Your task to perform on an android device: turn off wifi Image 0: 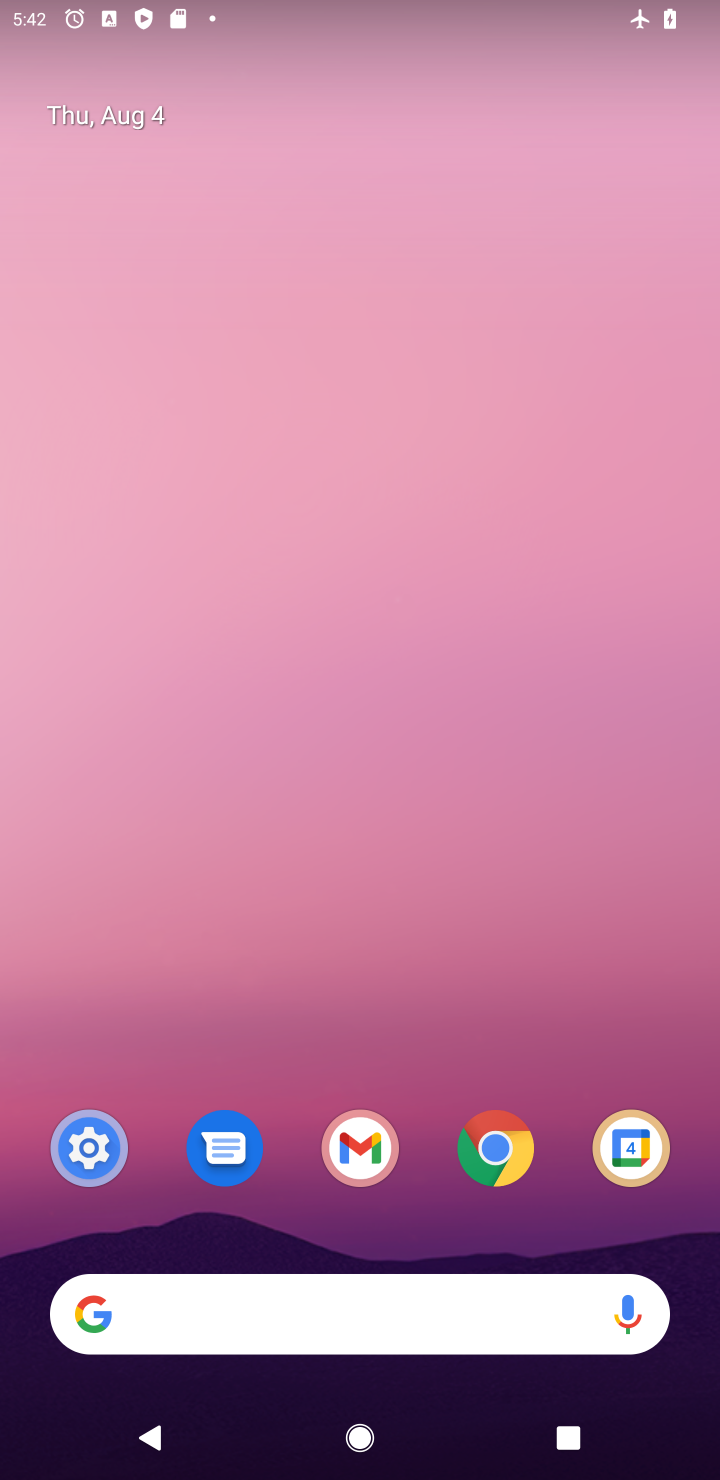
Step 0: click (88, 1149)
Your task to perform on an android device: turn off wifi Image 1: 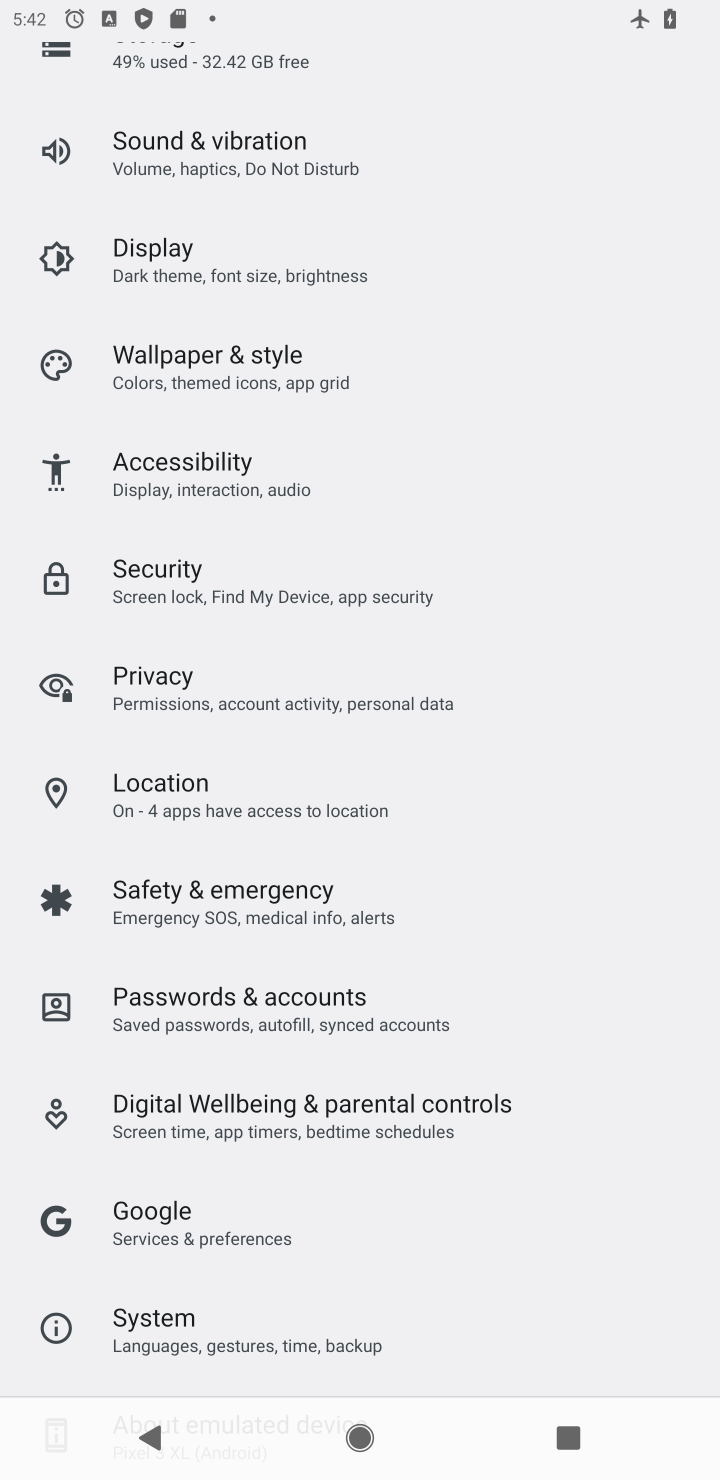
Step 1: drag from (449, 250) to (523, 880)
Your task to perform on an android device: turn off wifi Image 2: 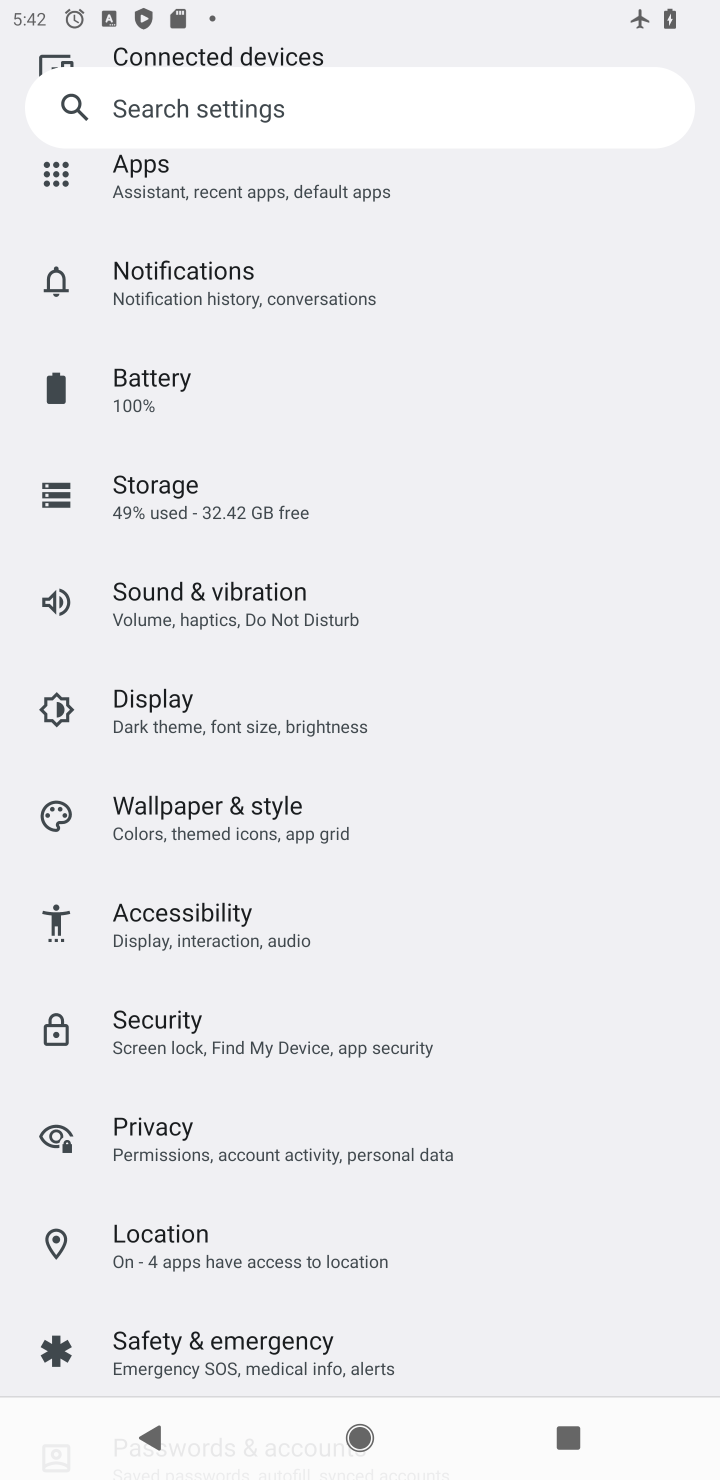
Step 2: drag from (508, 367) to (492, 953)
Your task to perform on an android device: turn off wifi Image 3: 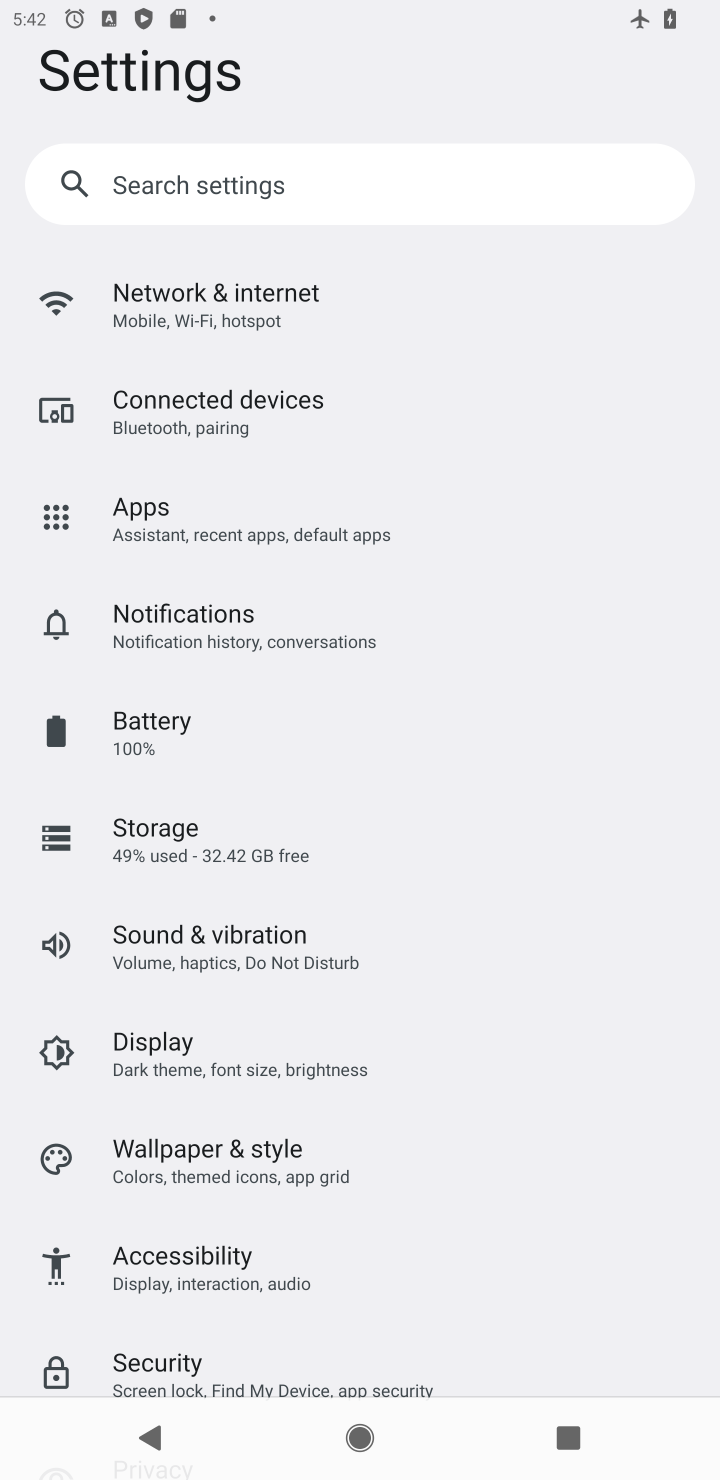
Step 3: click (155, 295)
Your task to perform on an android device: turn off wifi Image 4: 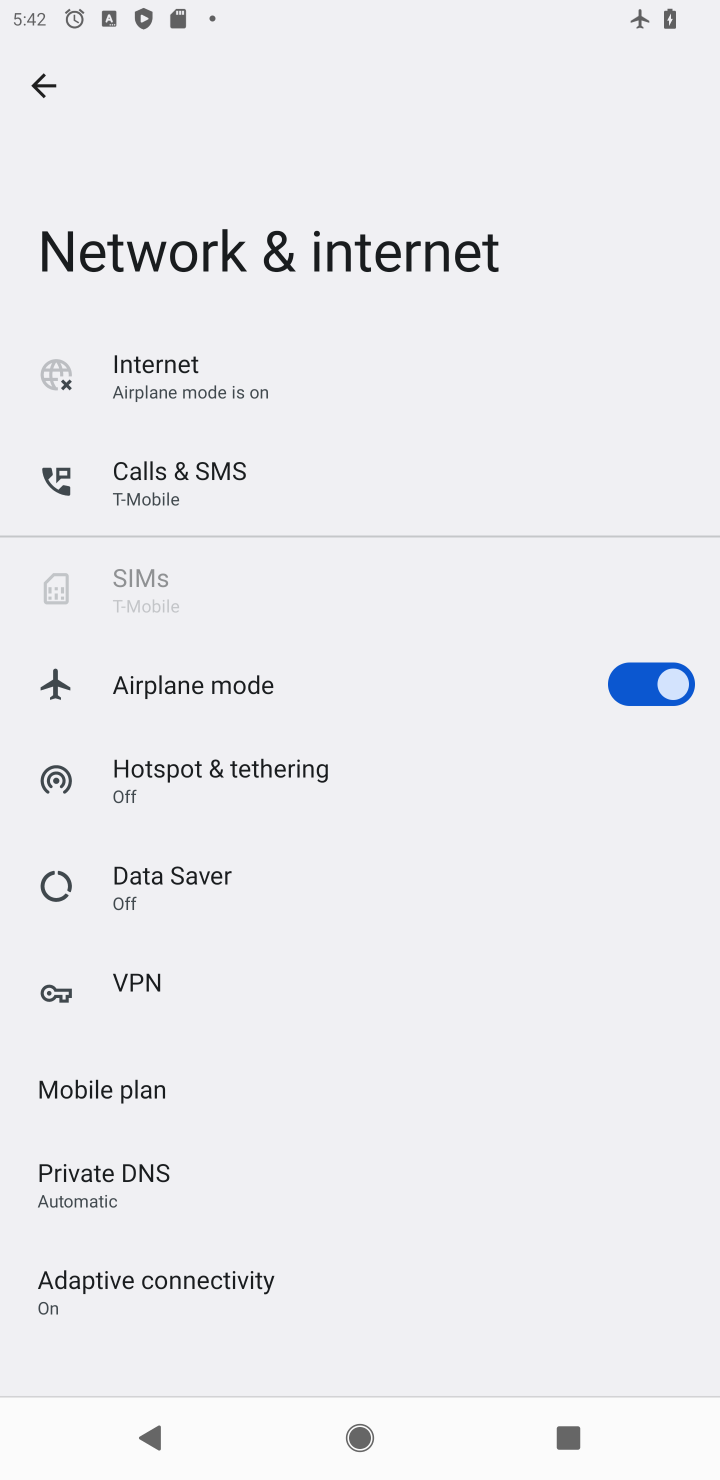
Step 4: click (630, 682)
Your task to perform on an android device: turn off wifi Image 5: 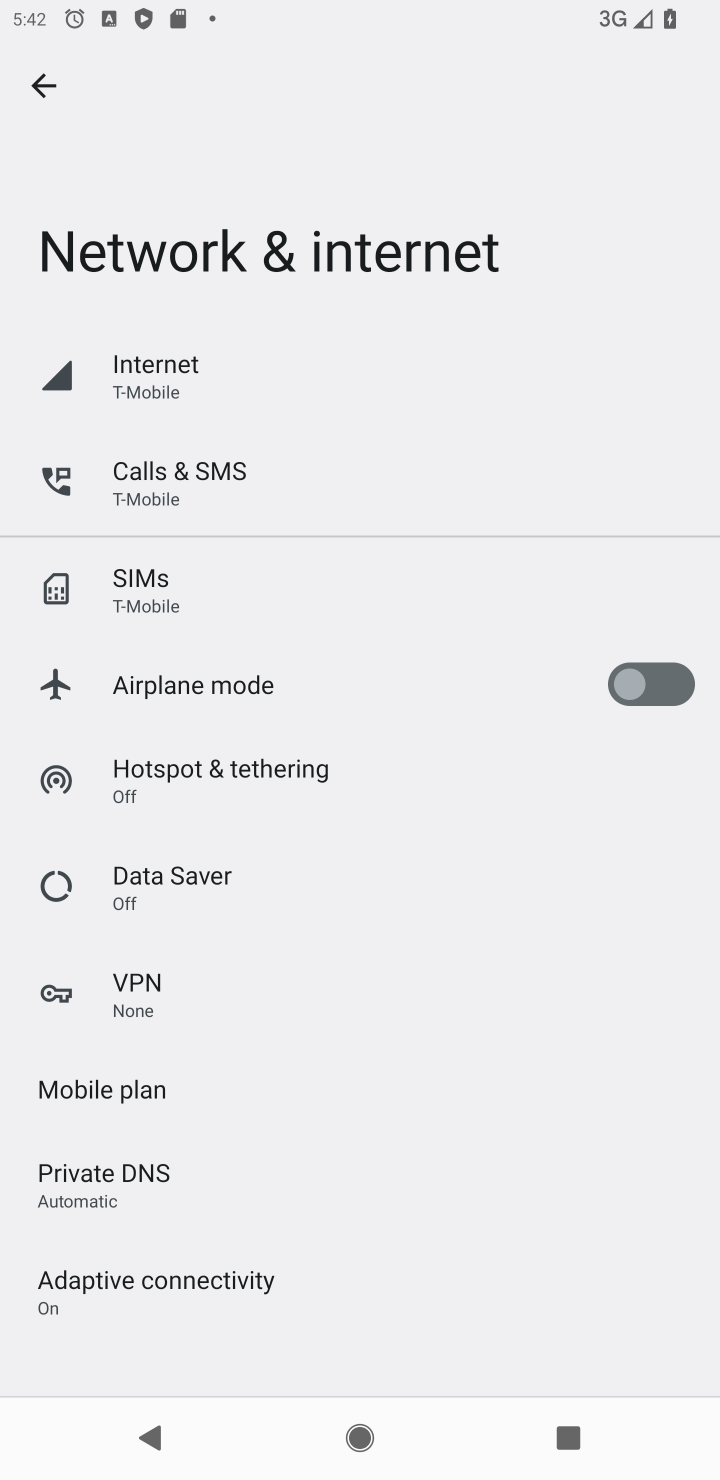
Step 5: click (166, 363)
Your task to perform on an android device: turn off wifi Image 6: 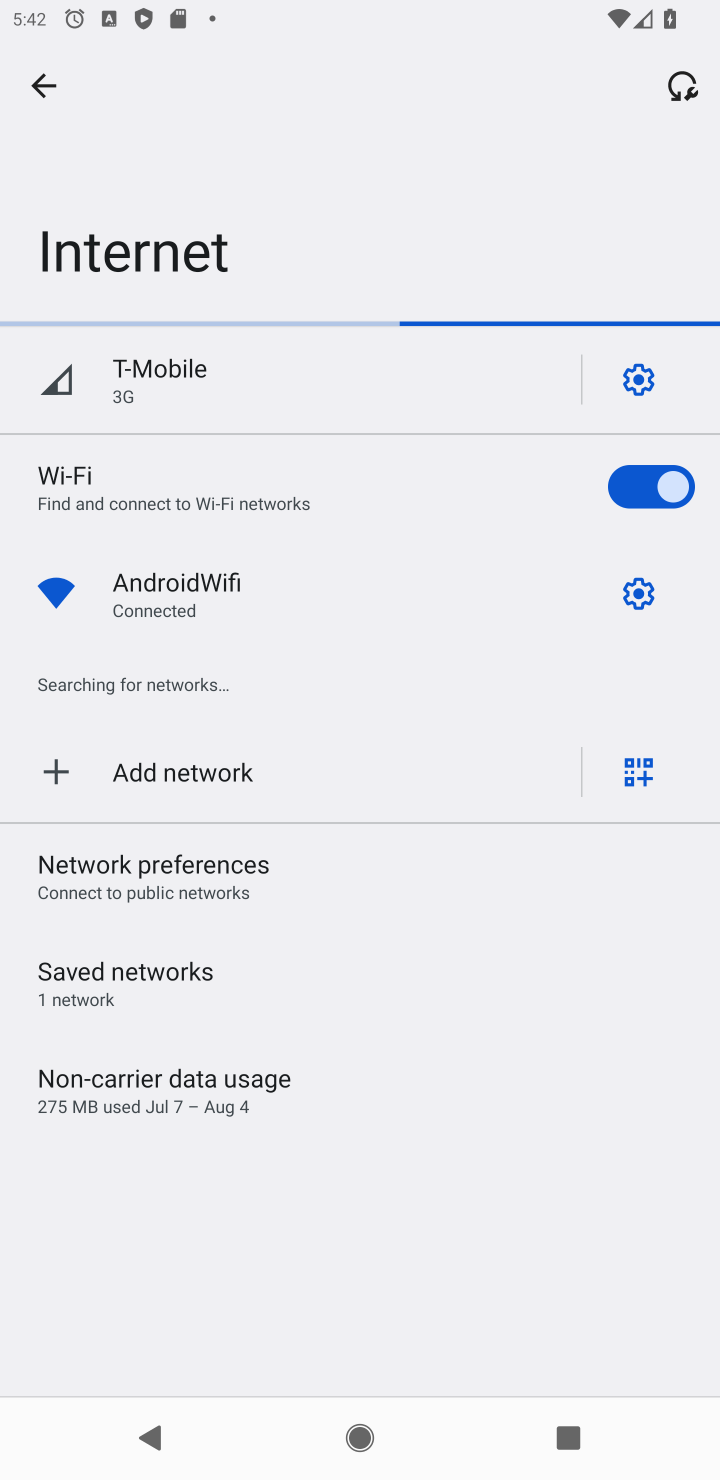
Step 6: click (610, 488)
Your task to perform on an android device: turn off wifi Image 7: 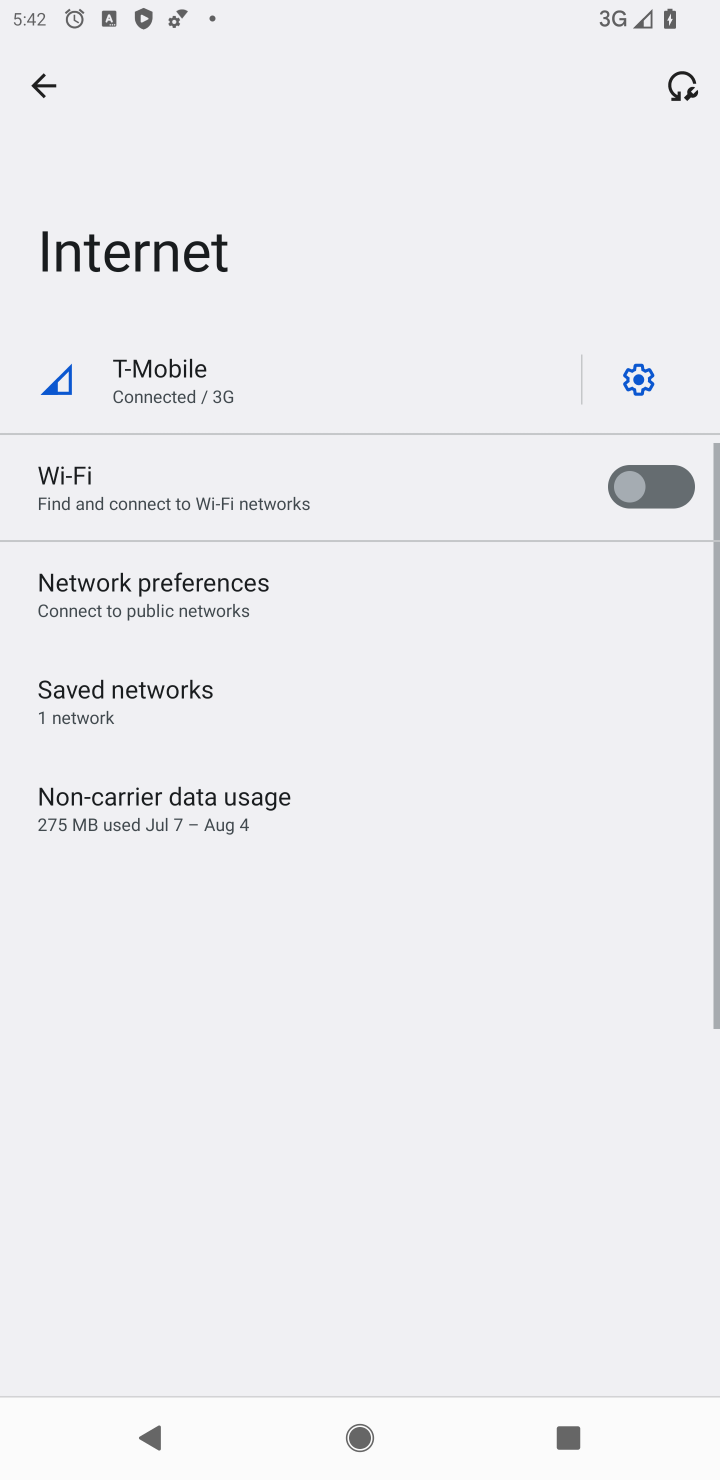
Step 7: task complete